Your task to perform on an android device: Open the calendar app, open the side menu, and click the "Day" option Image 0: 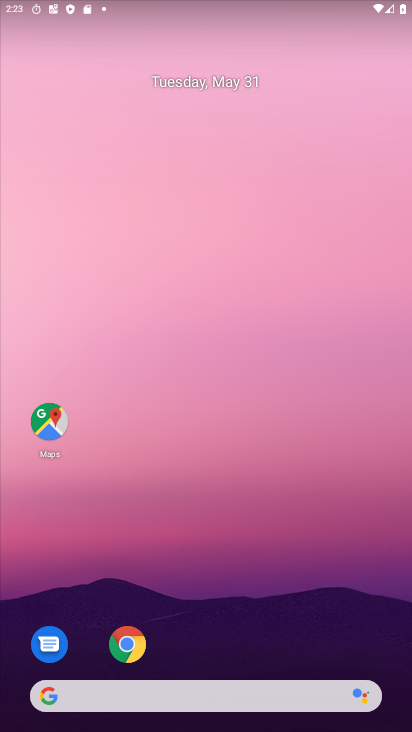
Step 0: drag from (394, 714) to (361, 131)
Your task to perform on an android device: Open the calendar app, open the side menu, and click the "Day" option Image 1: 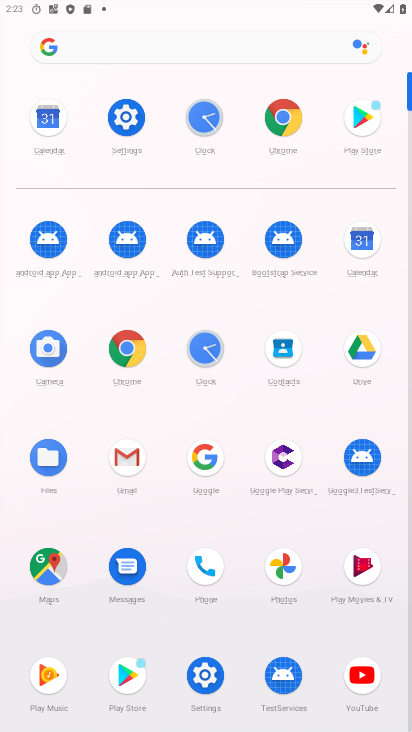
Step 1: click (349, 239)
Your task to perform on an android device: Open the calendar app, open the side menu, and click the "Day" option Image 2: 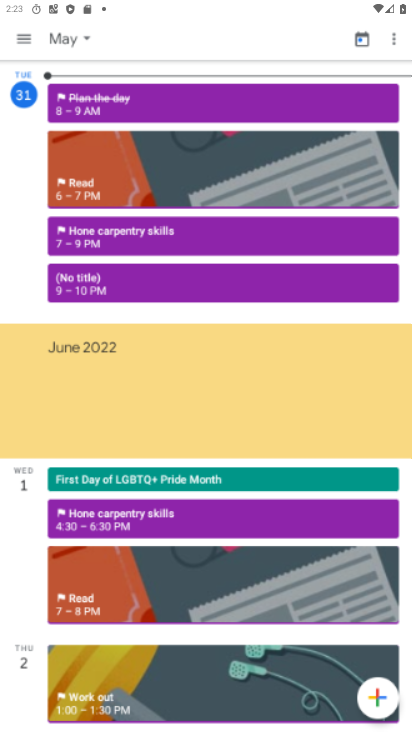
Step 2: click (19, 36)
Your task to perform on an android device: Open the calendar app, open the side menu, and click the "Day" option Image 3: 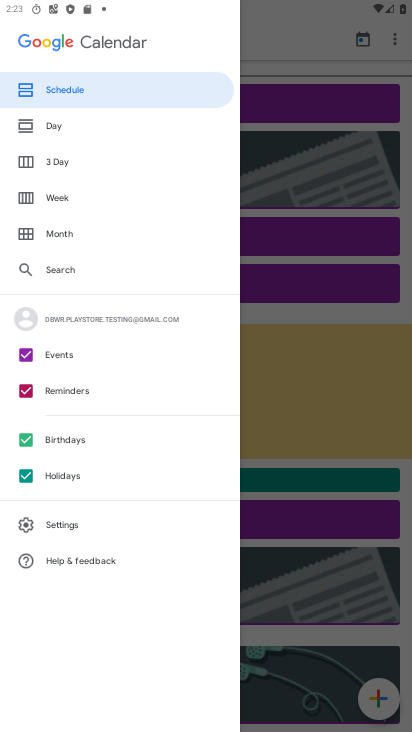
Step 3: click (54, 126)
Your task to perform on an android device: Open the calendar app, open the side menu, and click the "Day" option Image 4: 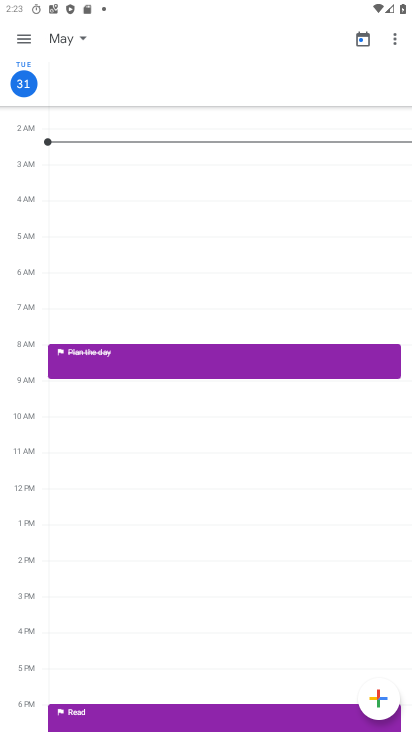
Step 4: task complete